Your task to perform on an android device: Search for the best selling books Image 0: 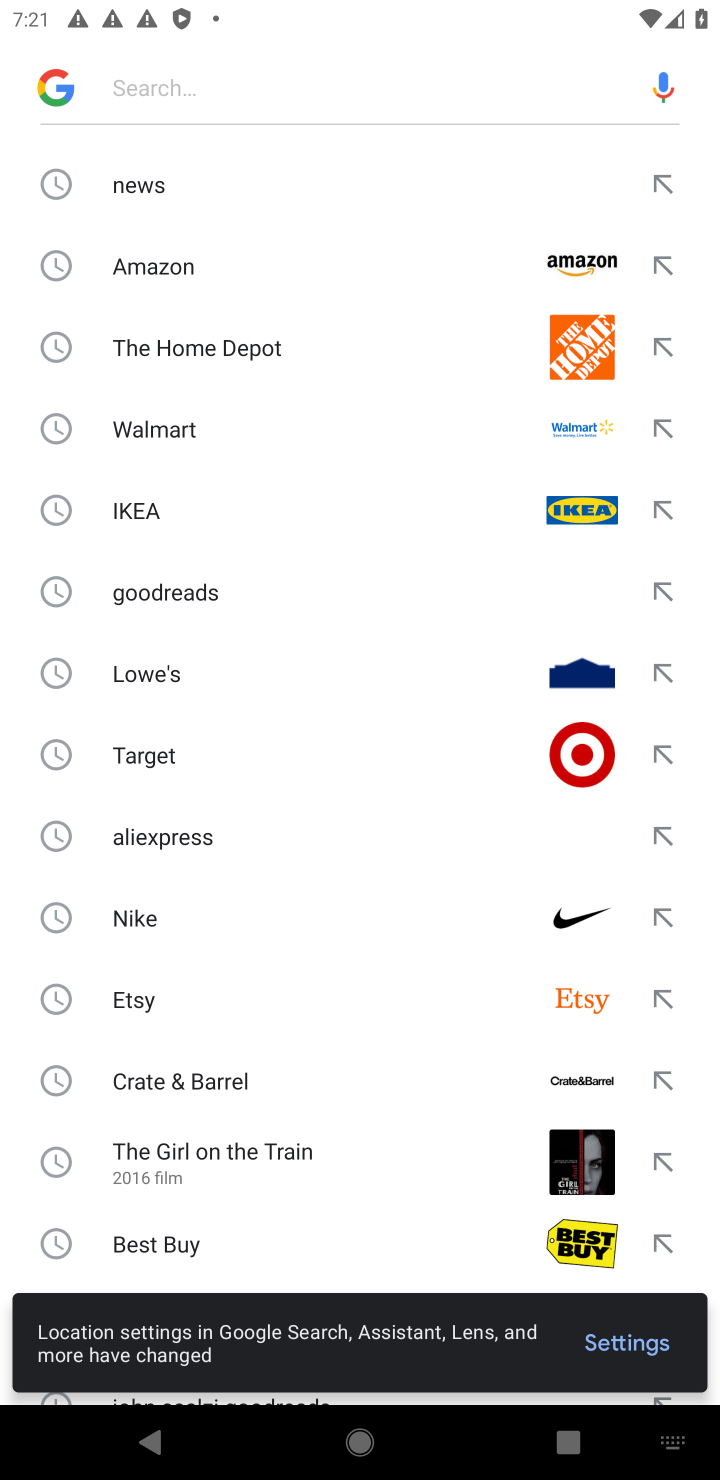
Step 0: press home button
Your task to perform on an android device: Search for the best selling books Image 1: 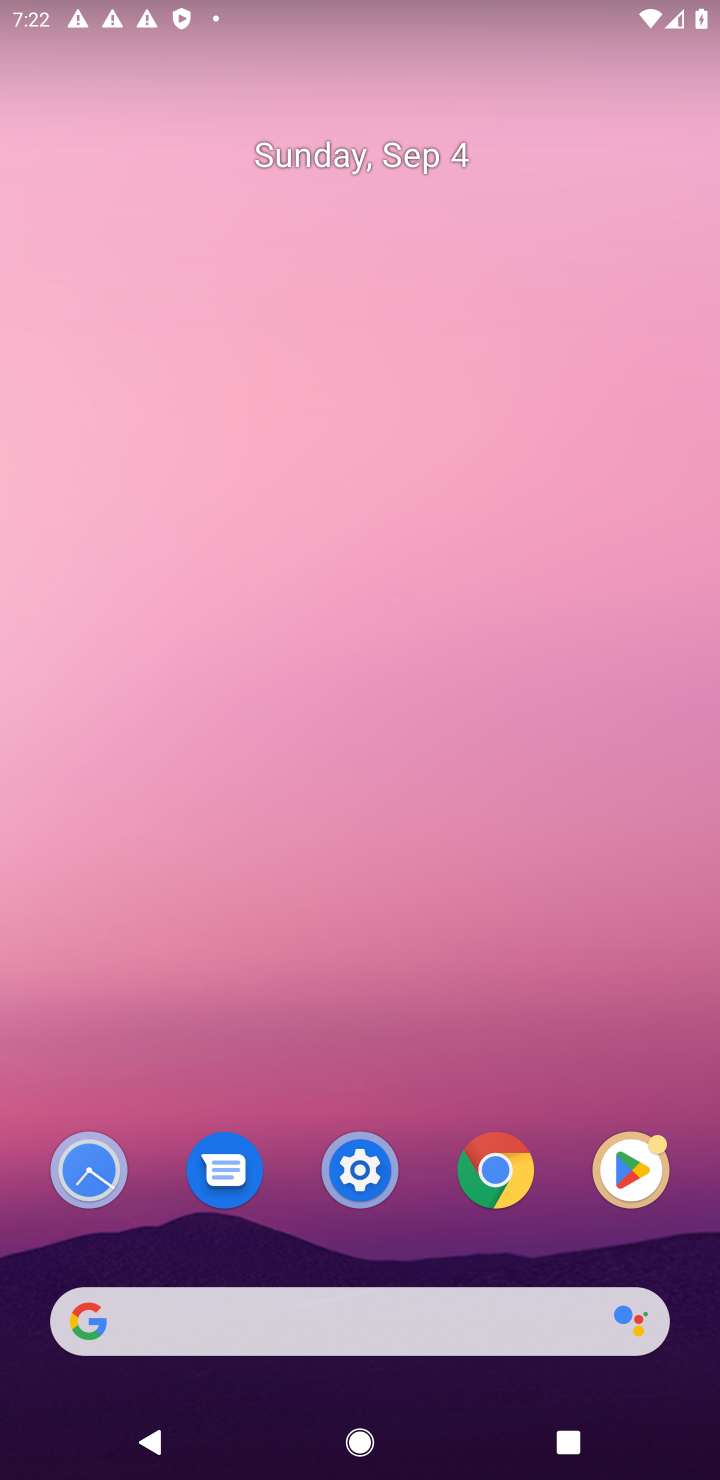
Step 1: click (508, 1184)
Your task to perform on an android device: Search for the best selling books Image 2: 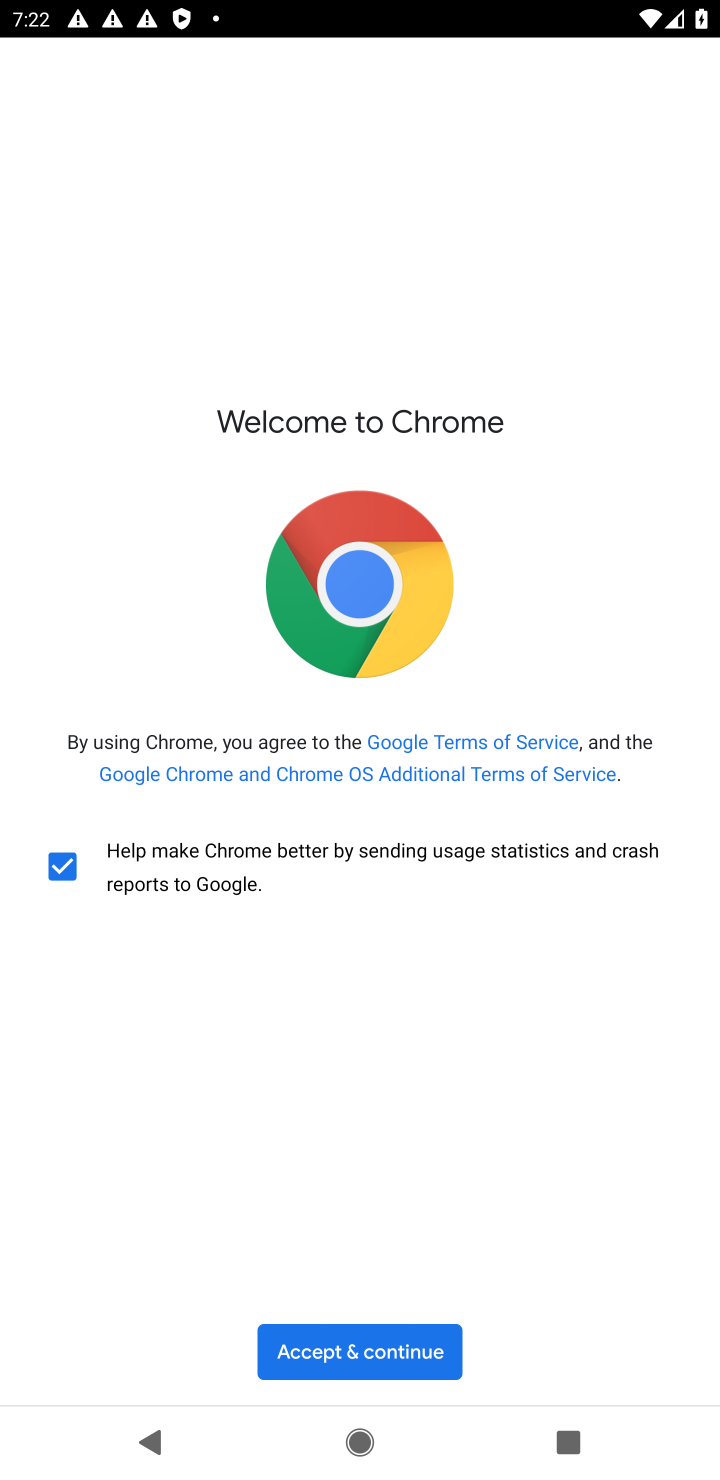
Step 2: click (328, 1344)
Your task to perform on an android device: Search for the best selling books Image 3: 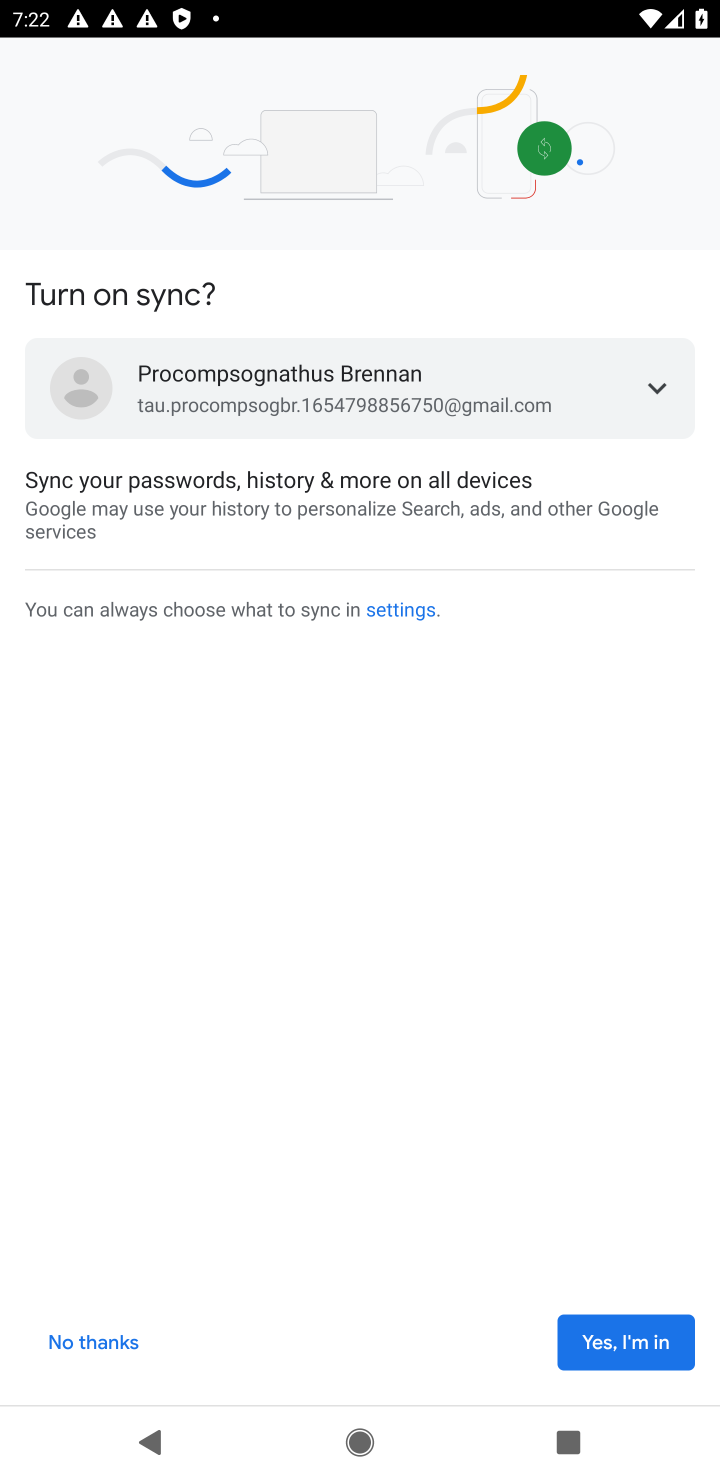
Step 3: click (580, 1324)
Your task to perform on an android device: Search for the best selling books Image 4: 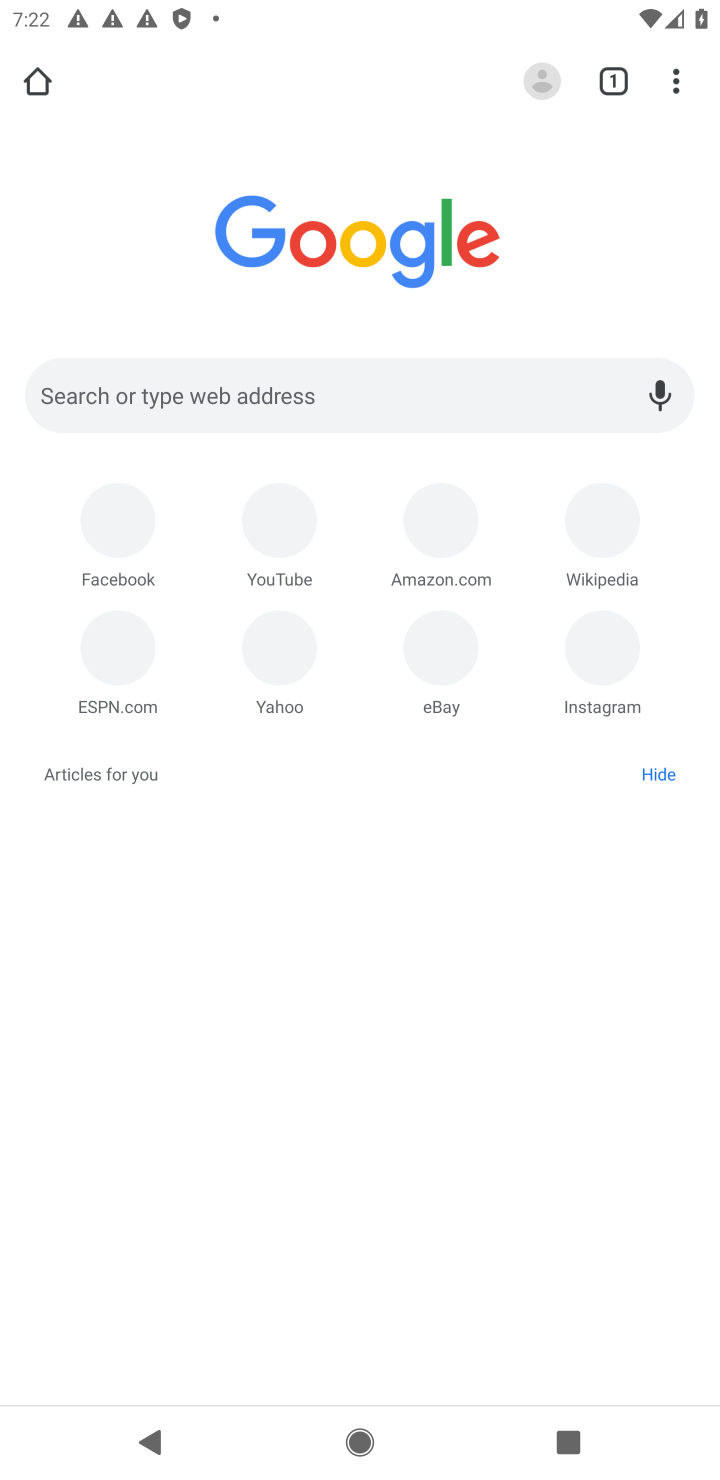
Step 4: click (250, 407)
Your task to perform on an android device: Search for the best selling books Image 5: 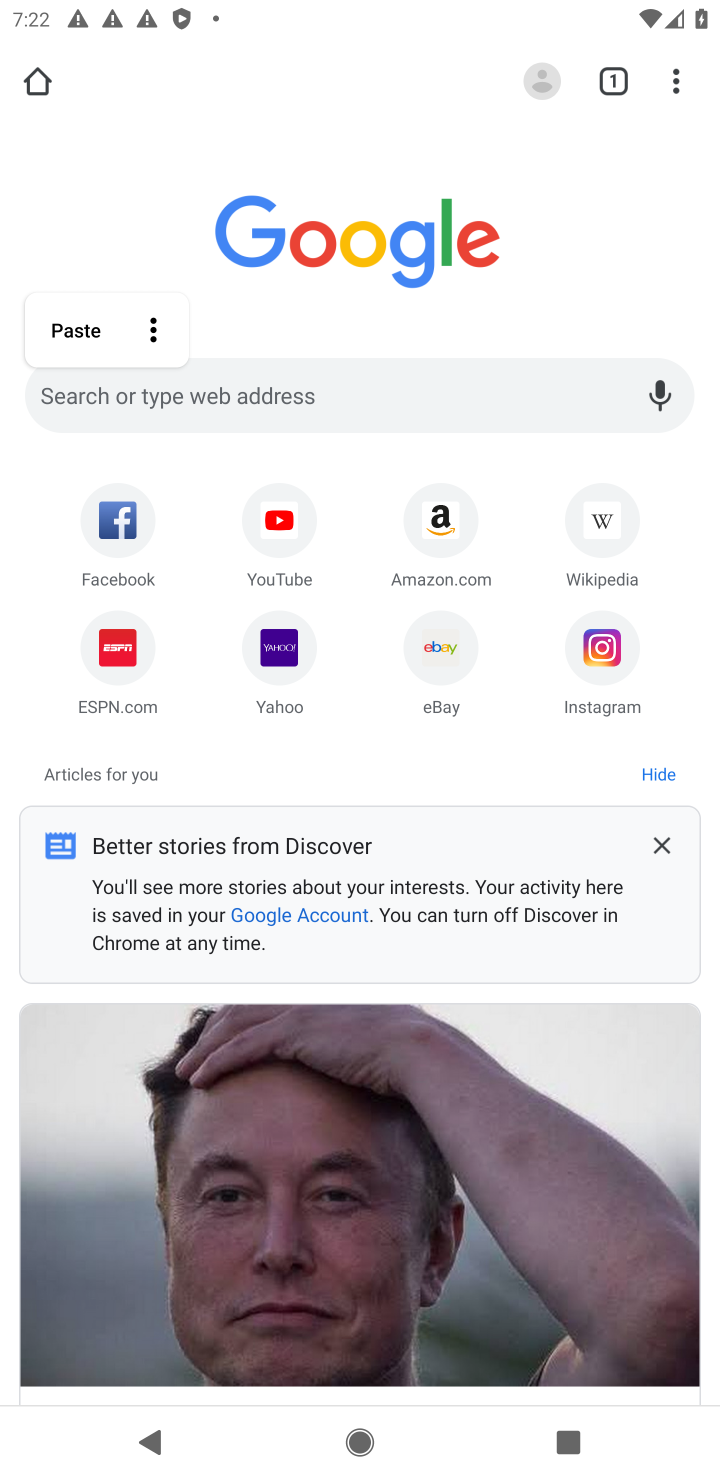
Step 5: click (292, 386)
Your task to perform on an android device: Search for the best selling books Image 6: 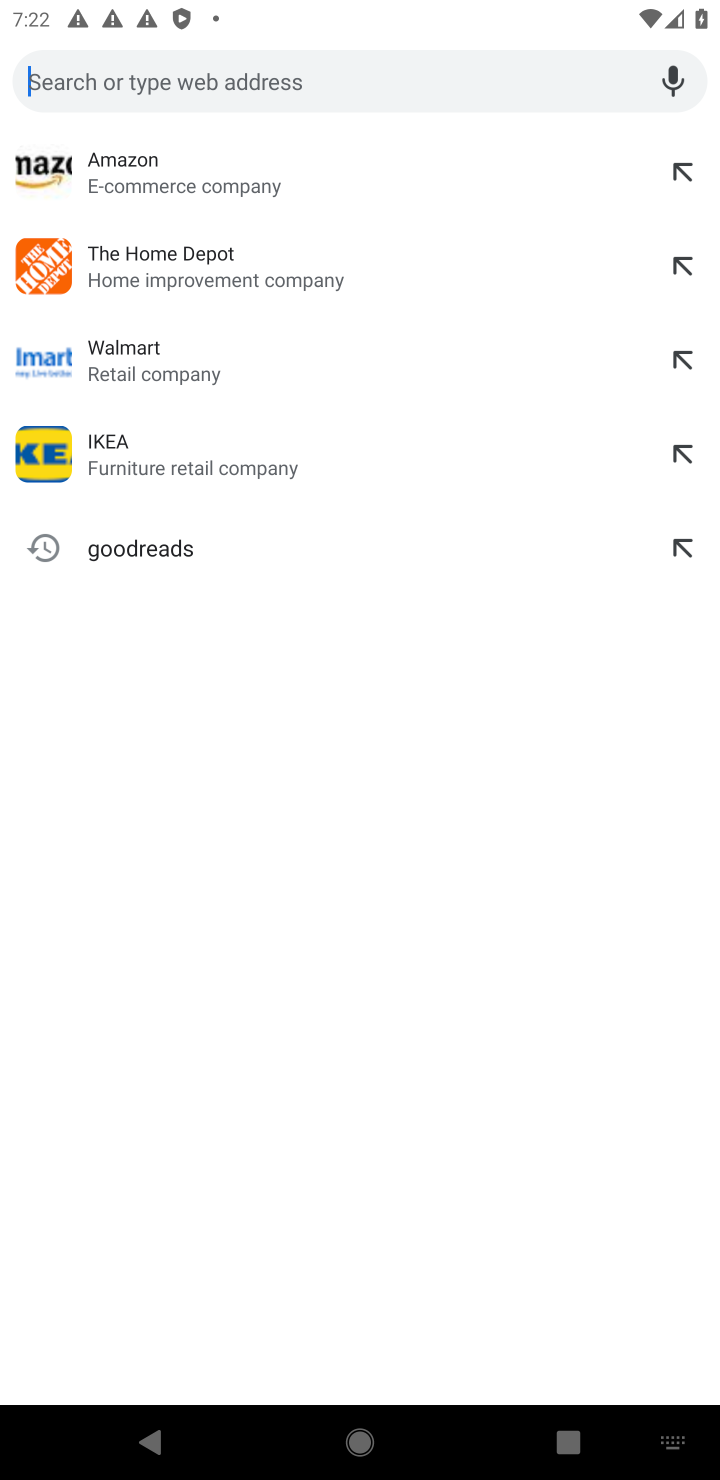
Step 6: type "the best selling books"
Your task to perform on an android device: Search for the best selling books Image 7: 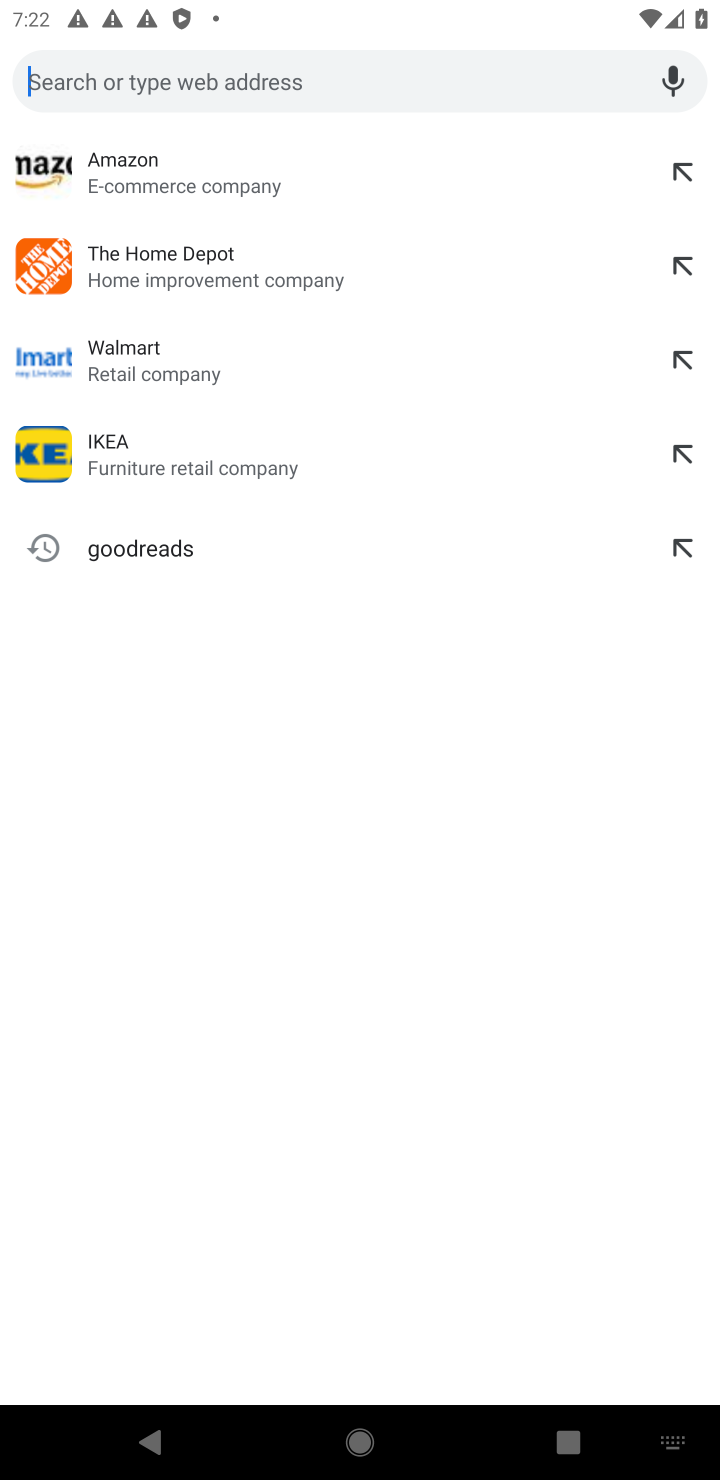
Step 7: click (397, 75)
Your task to perform on an android device: Search for the best selling books Image 8: 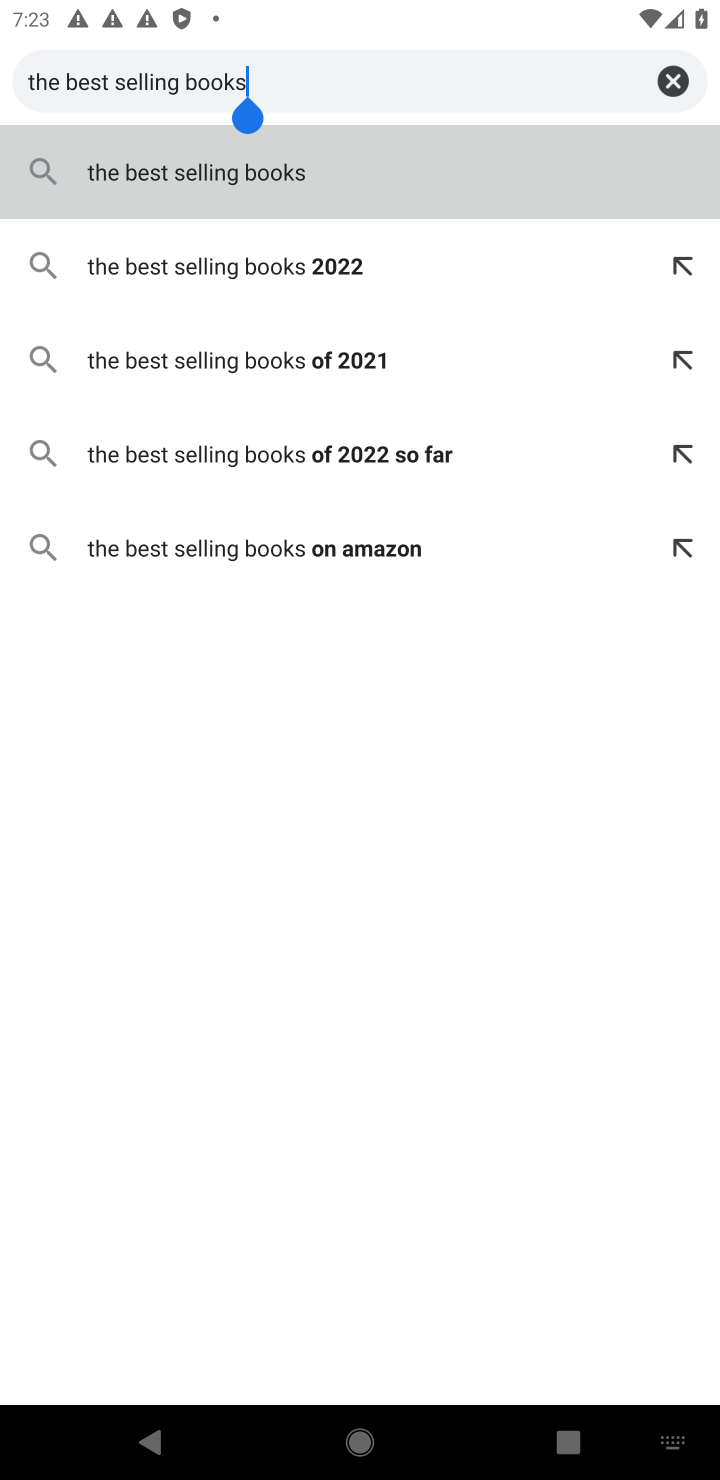
Step 8: click (335, 177)
Your task to perform on an android device: Search for the best selling books Image 9: 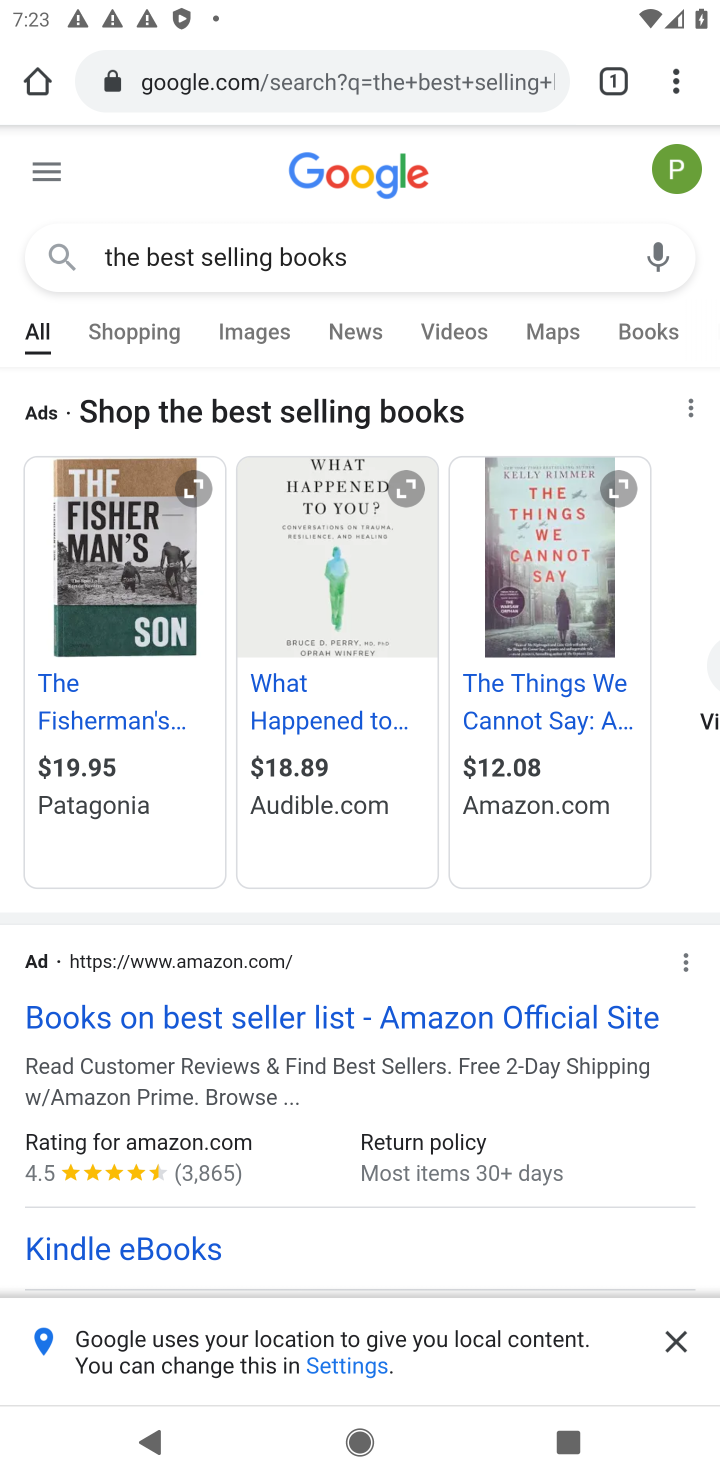
Step 9: drag from (567, 588) to (213, 596)
Your task to perform on an android device: Search for the best selling books Image 10: 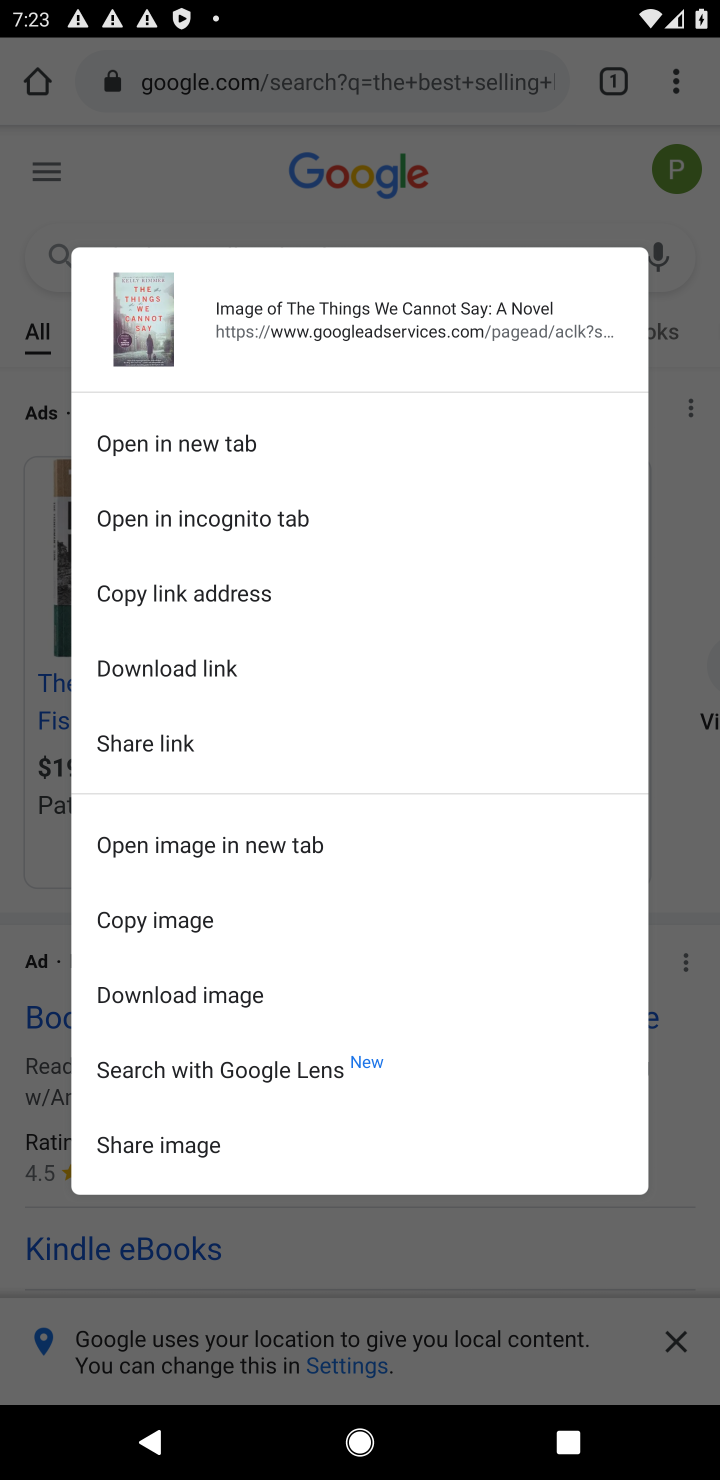
Step 10: click (521, 1275)
Your task to perform on an android device: Search for the best selling books Image 11: 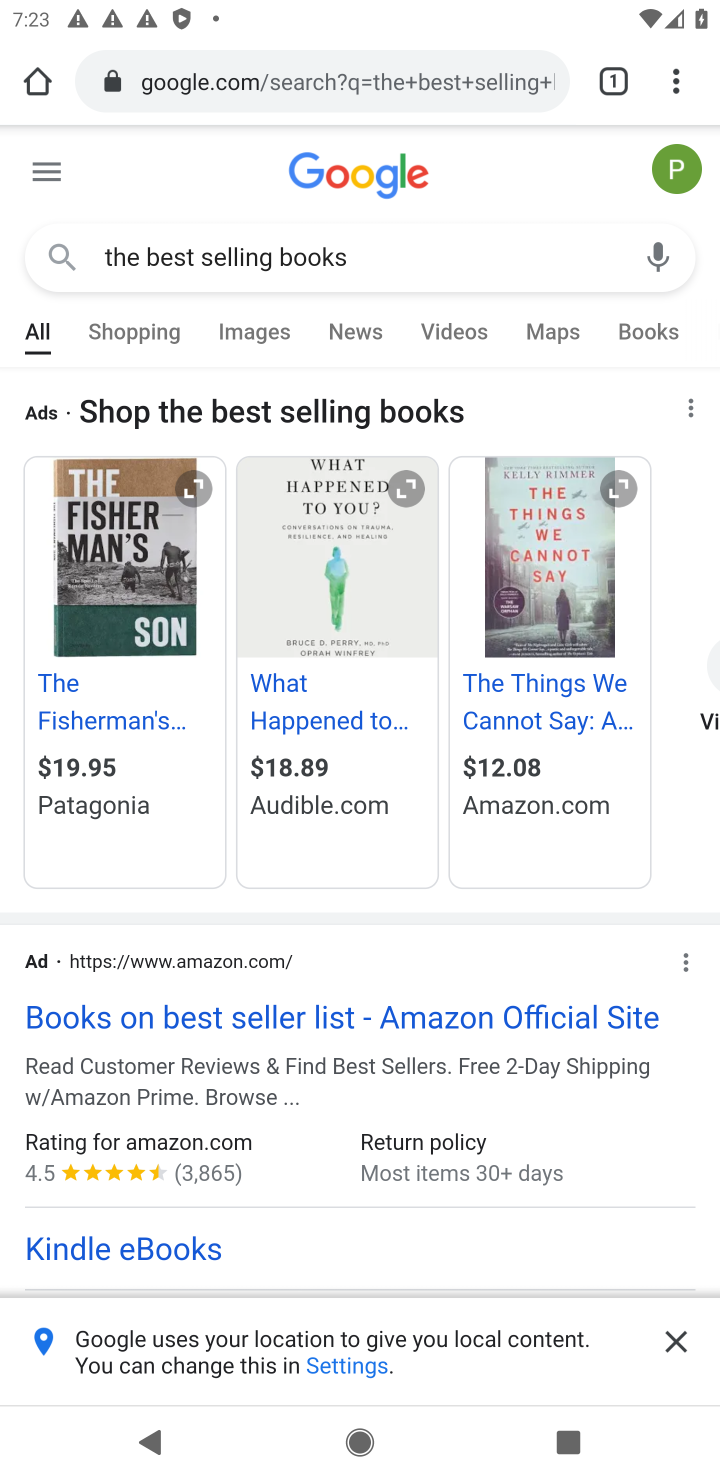
Step 11: task complete